Your task to perform on an android device: check android version Image 0: 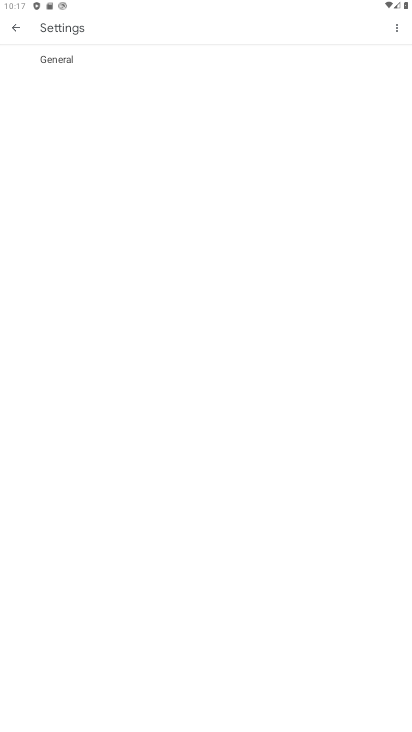
Step 0: click (240, 382)
Your task to perform on an android device: check android version Image 1: 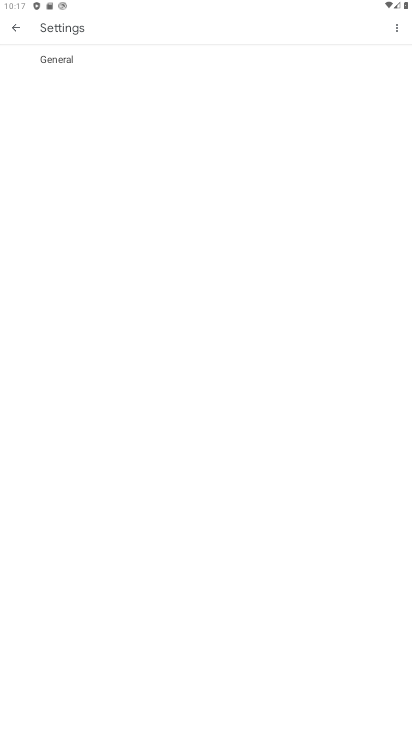
Step 1: click (19, 36)
Your task to perform on an android device: check android version Image 2: 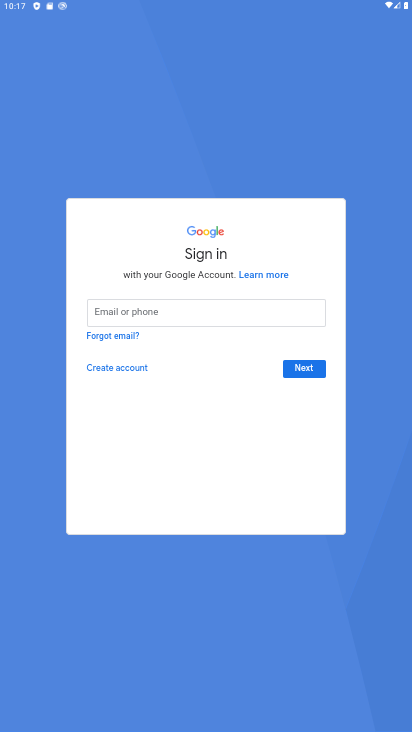
Step 2: press back button
Your task to perform on an android device: check android version Image 3: 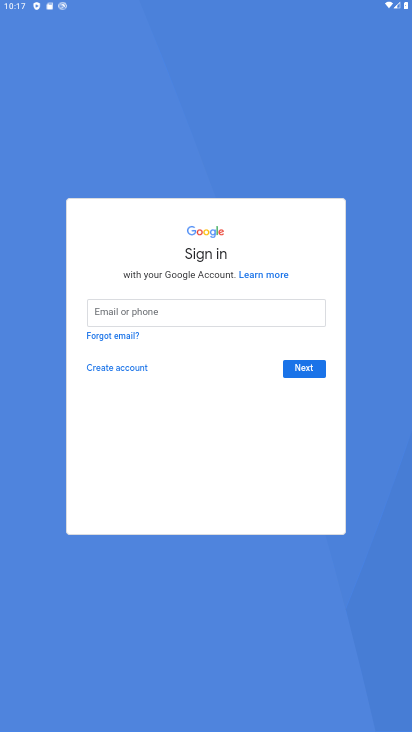
Step 3: press back button
Your task to perform on an android device: check android version Image 4: 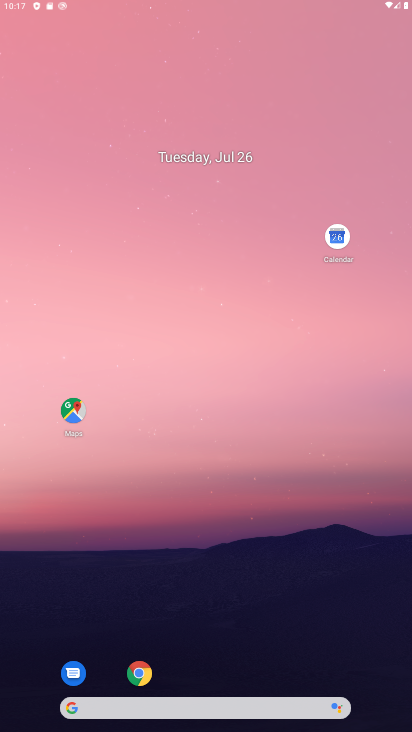
Step 4: press back button
Your task to perform on an android device: check android version Image 5: 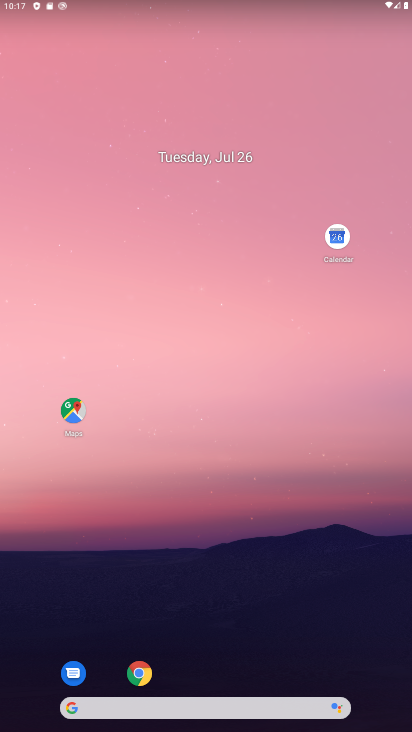
Step 5: drag from (233, 516) to (240, 37)
Your task to perform on an android device: check android version Image 6: 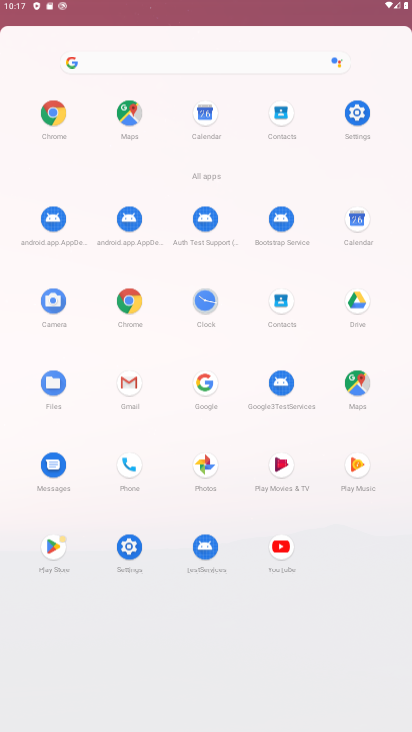
Step 6: drag from (246, 448) to (153, 186)
Your task to perform on an android device: check android version Image 7: 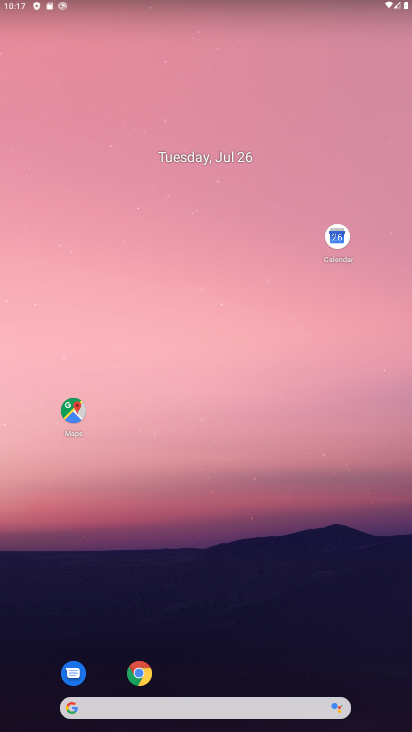
Step 7: drag from (189, 481) to (123, 96)
Your task to perform on an android device: check android version Image 8: 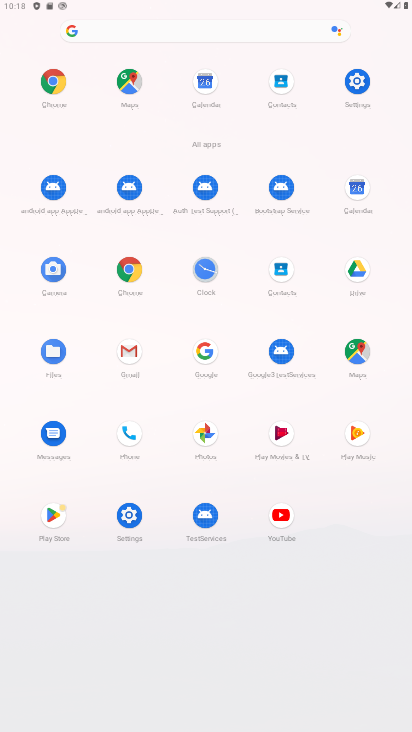
Step 8: click (352, 84)
Your task to perform on an android device: check android version Image 9: 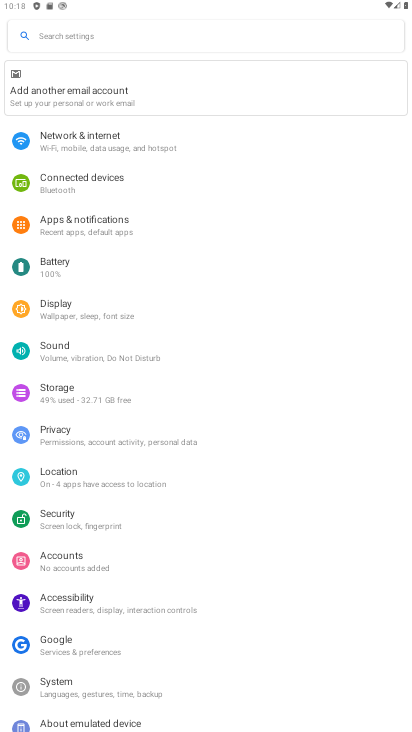
Step 9: drag from (116, 139) to (112, 17)
Your task to perform on an android device: check android version Image 10: 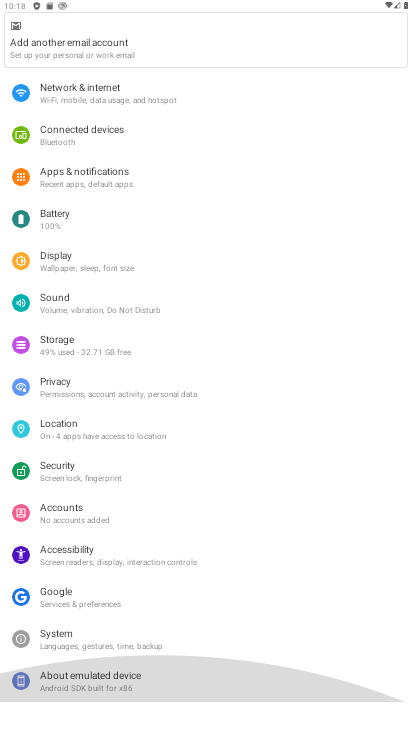
Step 10: drag from (97, 340) to (140, 118)
Your task to perform on an android device: check android version Image 11: 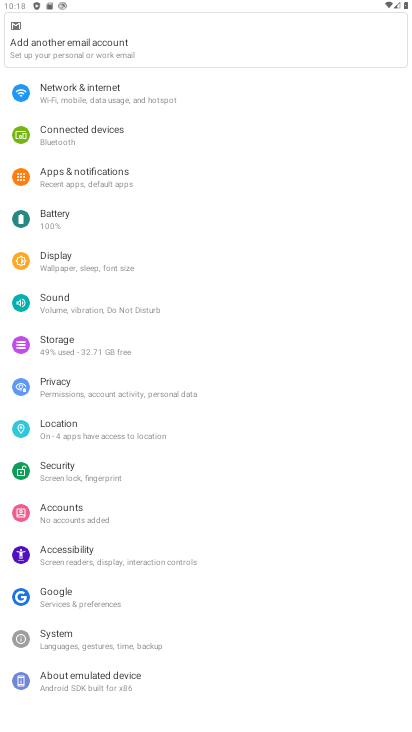
Step 11: click (95, 108)
Your task to perform on an android device: check android version Image 12: 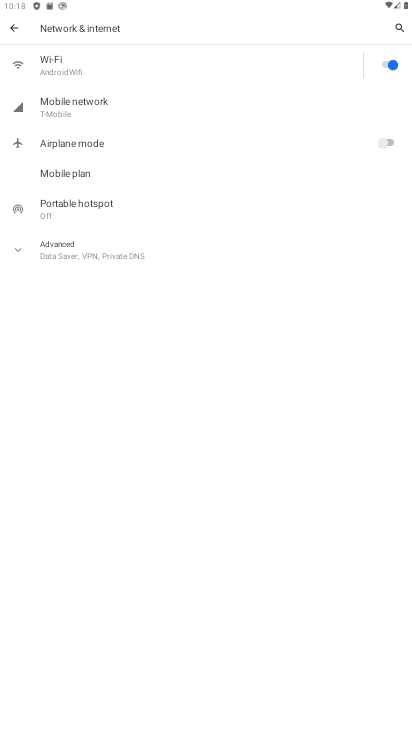
Step 12: click (11, 22)
Your task to perform on an android device: check android version Image 13: 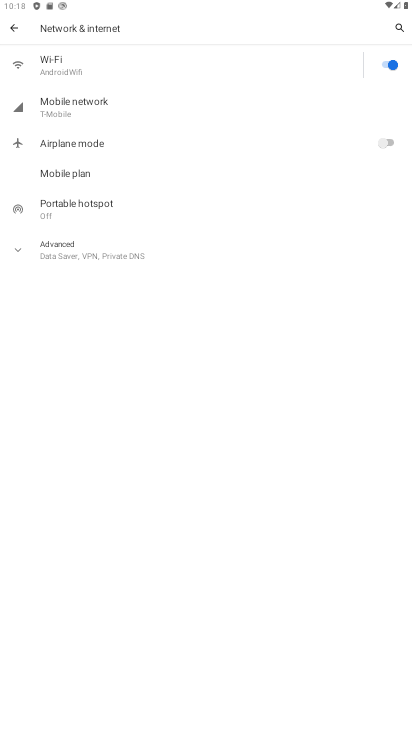
Step 13: click (11, 19)
Your task to perform on an android device: check android version Image 14: 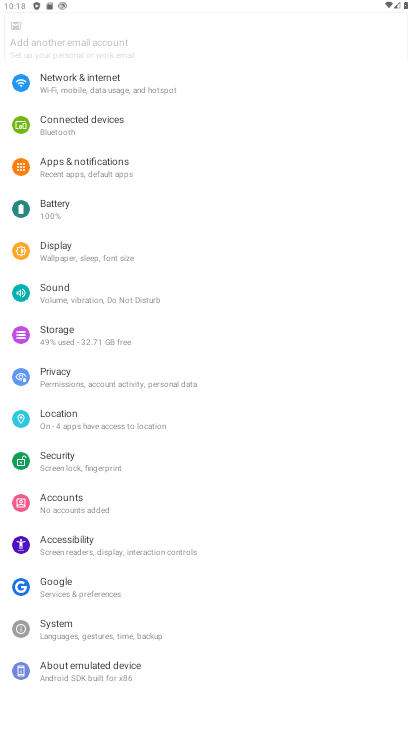
Step 14: click (14, 20)
Your task to perform on an android device: check android version Image 15: 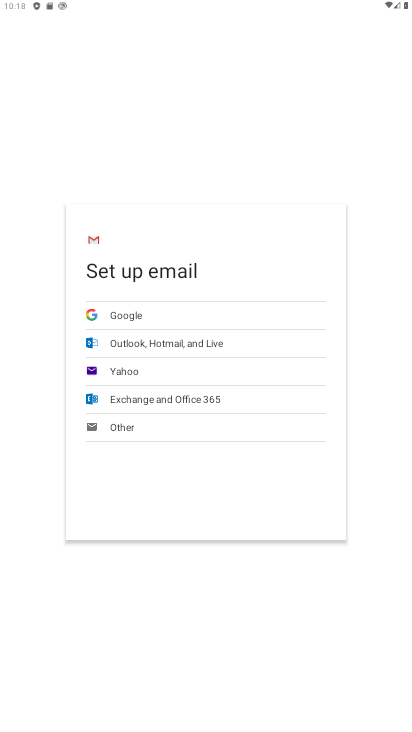
Step 15: click (62, 71)
Your task to perform on an android device: check android version Image 16: 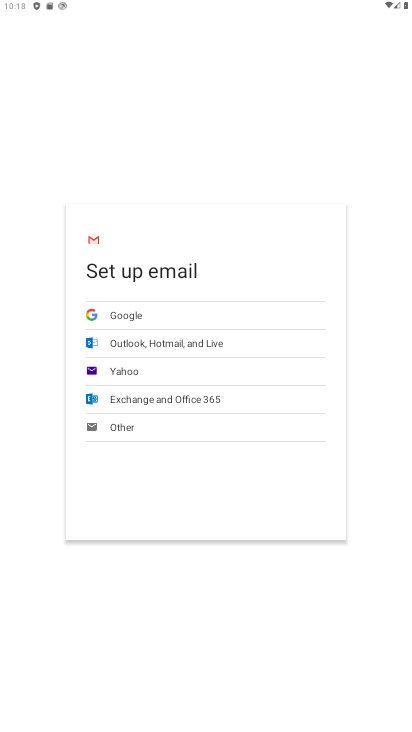
Step 16: click (62, 70)
Your task to perform on an android device: check android version Image 17: 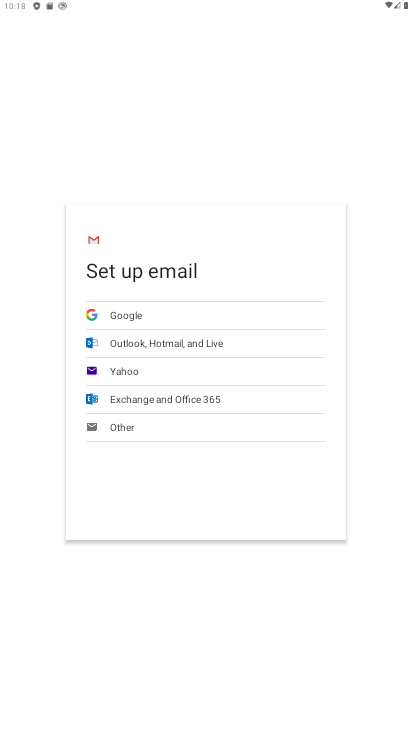
Step 17: press back button
Your task to perform on an android device: check android version Image 18: 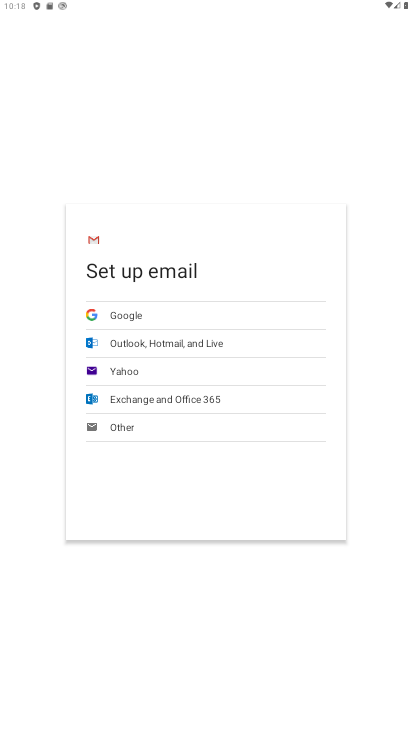
Step 18: press back button
Your task to perform on an android device: check android version Image 19: 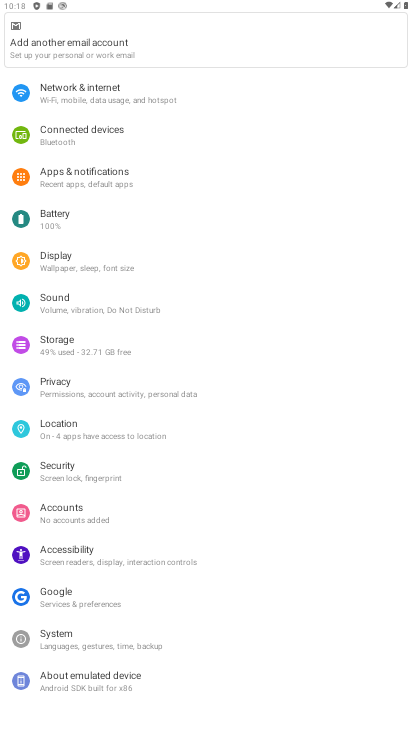
Step 19: press back button
Your task to perform on an android device: check android version Image 20: 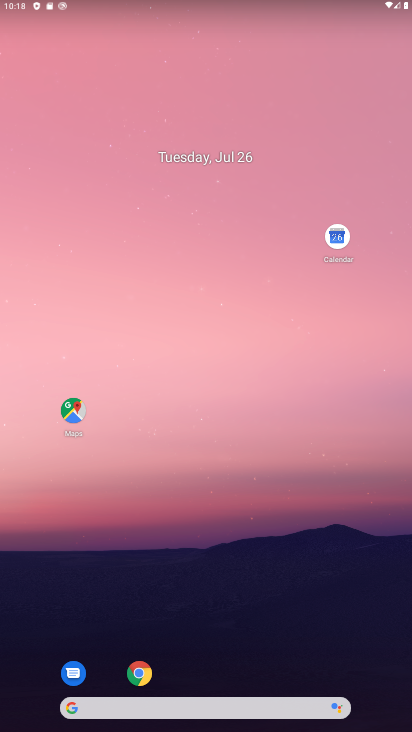
Step 20: drag from (212, 251) to (166, 27)
Your task to perform on an android device: check android version Image 21: 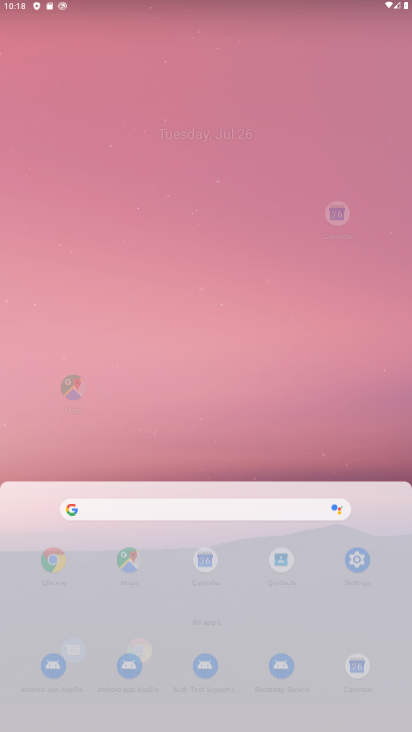
Step 21: drag from (188, 426) to (128, 0)
Your task to perform on an android device: check android version Image 22: 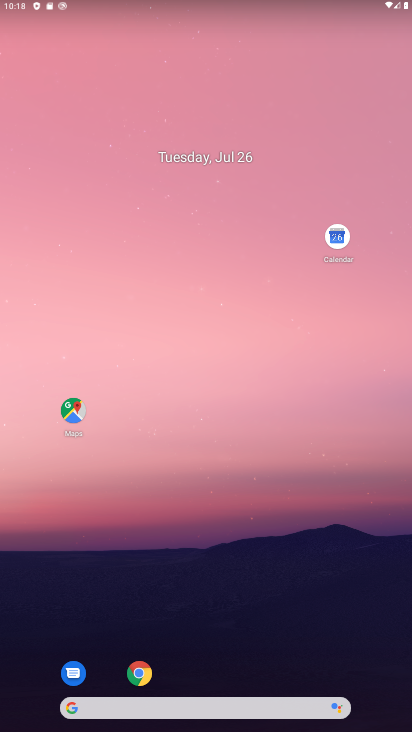
Step 22: drag from (200, 269) to (159, 20)
Your task to perform on an android device: check android version Image 23: 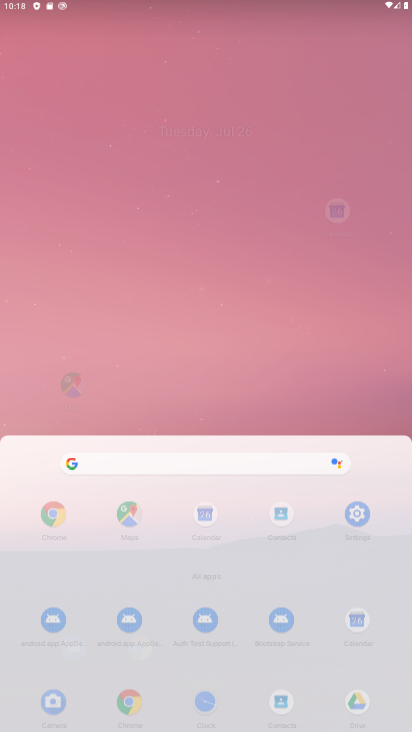
Step 23: drag from (223, 268) to (211, 47)
Your task to perform on an android device: check android version Image 24: 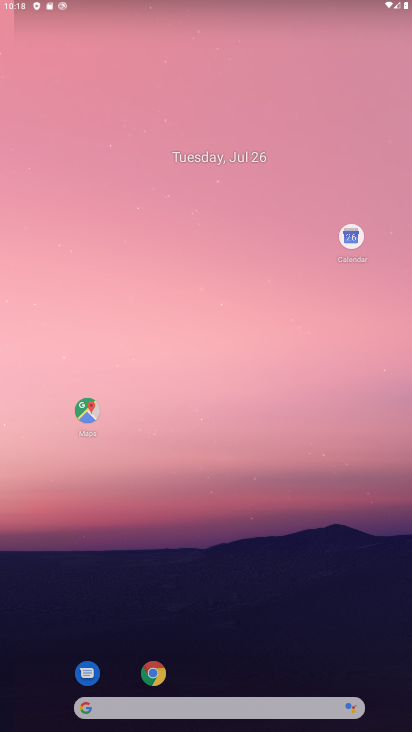
Step 24: click (217, 247)
Your task to perform on an android device: check android version Image 25: 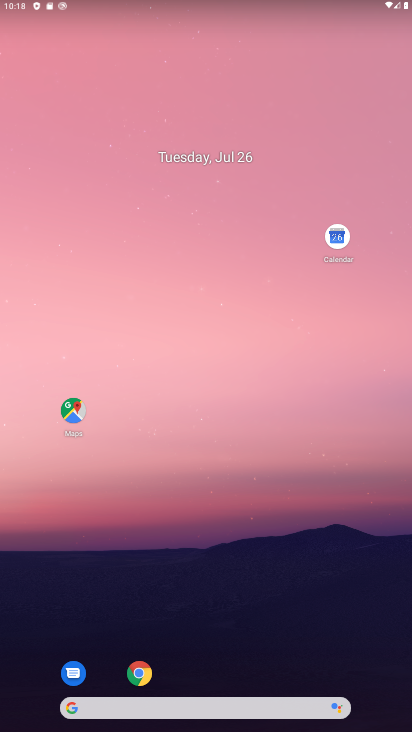
Step 25: task complete